Your task to perform on an android device: change text size in settings app Image 0: 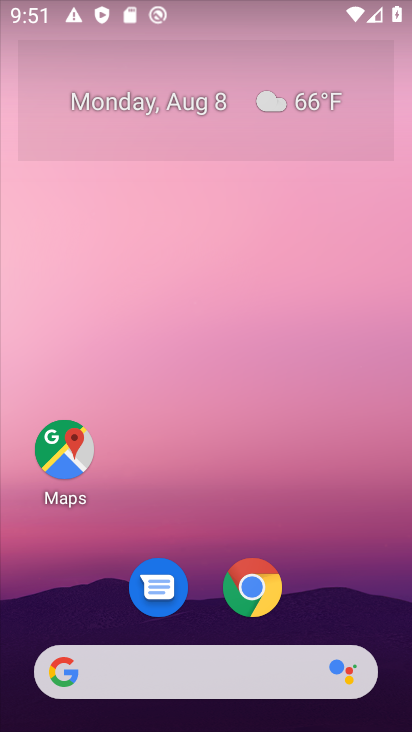
Step 0: drag from (90, 398) to (99, 85)
Your task to perform on an android device: change text size in settings app Image 1: 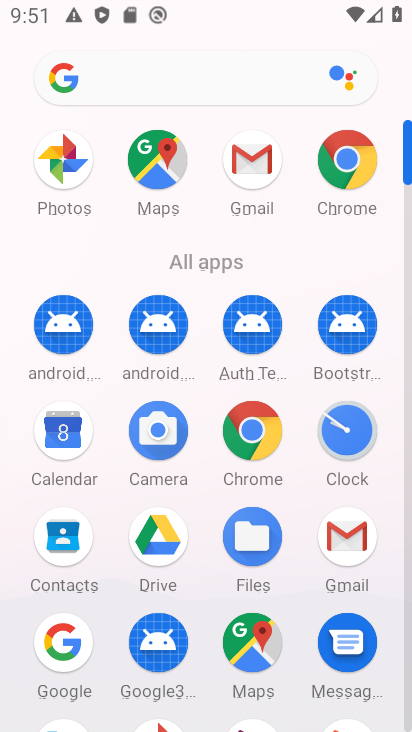
Step 1: drag from (224, 660) to (221, 119)
Your task to perform on an android device: change text size in settings app Image 2: 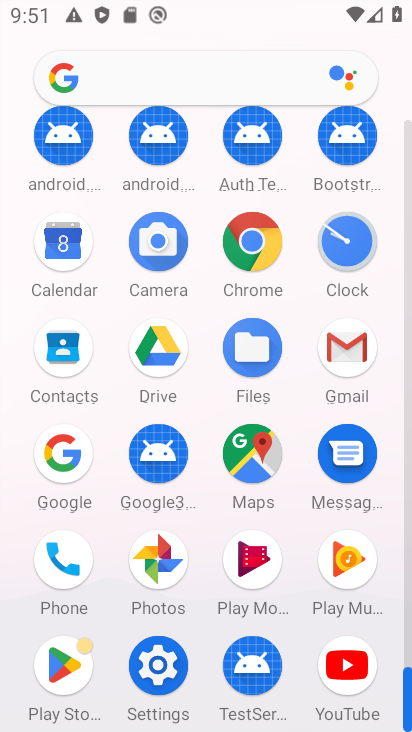
Step 2: click (143, 659)
Your task to perform on an android device: change text size in settings app Image 3: 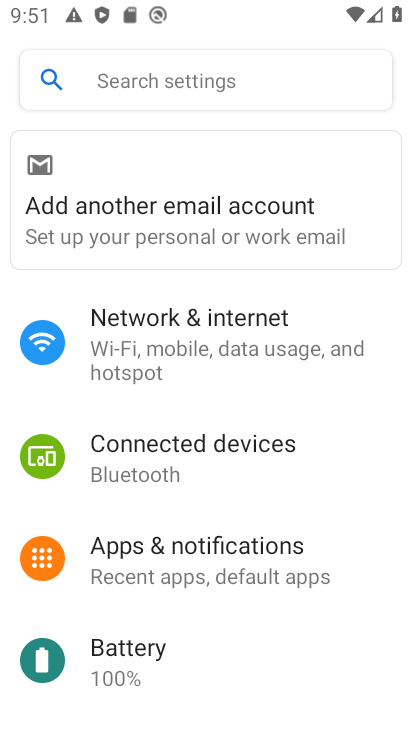
Step 3: drag from (314, 619) to (388, 10)
Your task to perform on an android device: change text size in settings app Image 4: 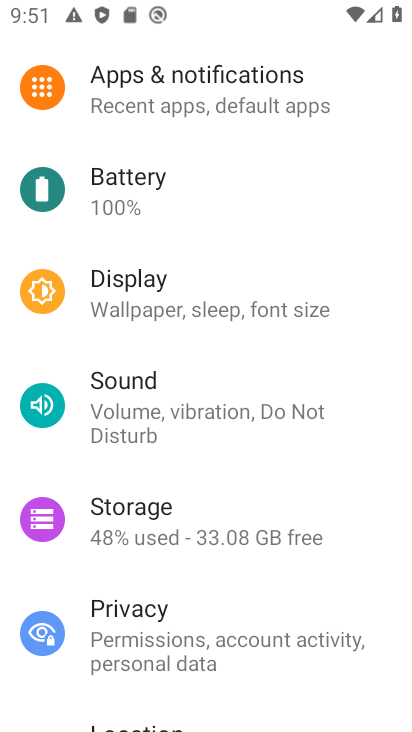
Step 4: click (253, 291)
Your task to perform on an android device: change text size in settings app Image 5: 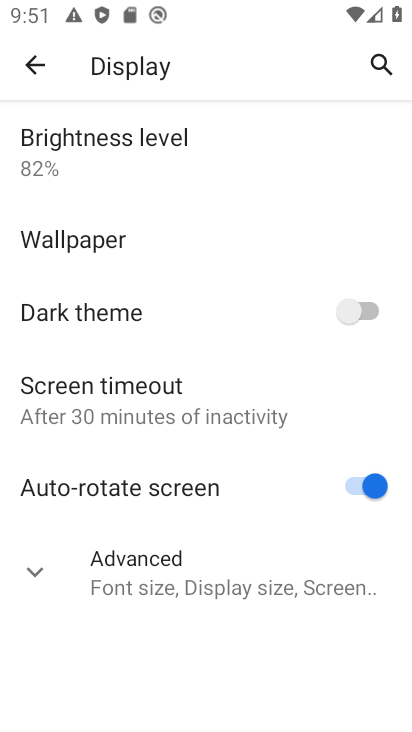
Step 5: click (184, 577)
Your task to perform on an android device: change text size in settings app Image 6: 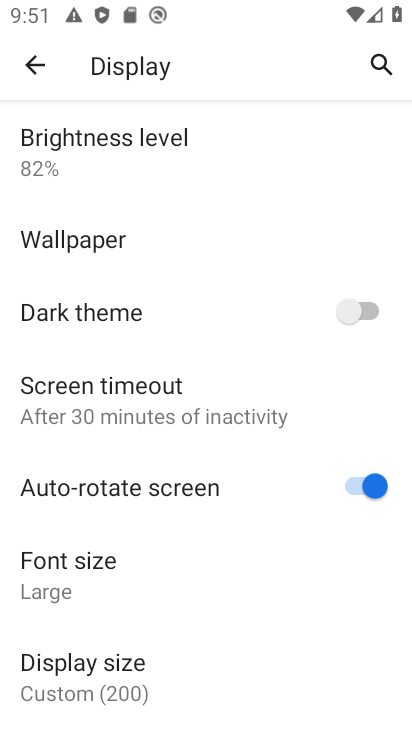
Step 6: click (184, 577)
Your task to perform on an android device: change text size in settings app Image 7: 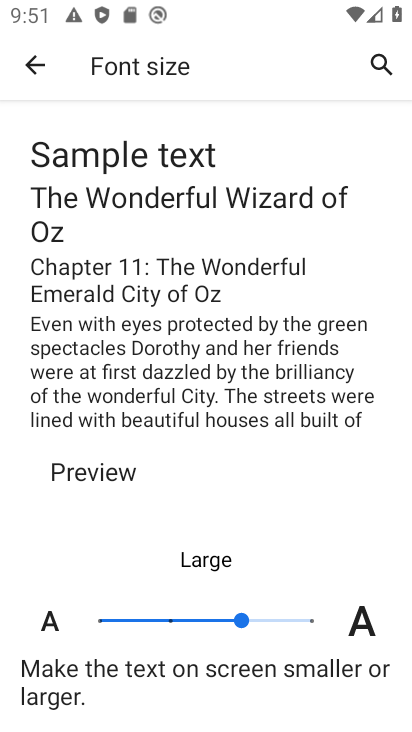
Step 7: click (171, 623)
Your task to perform on an android device: change text size in settings app Image 8: 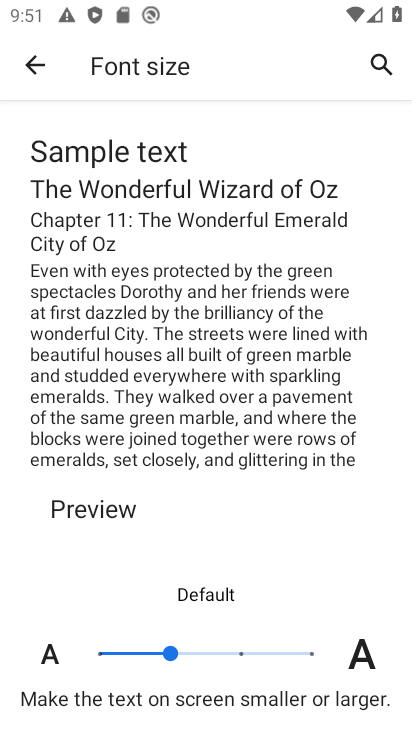
Step 8: task complete